Your task to perform on an android device: Open settings Image 0: 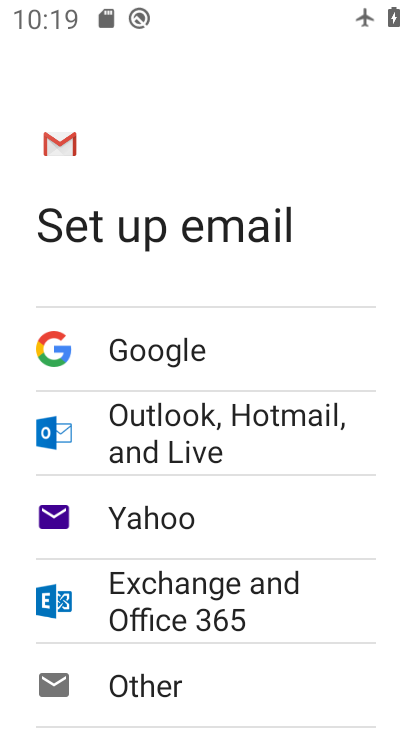
Step 0: press home button
Your task to perform on an android device: Open settings Image 1: 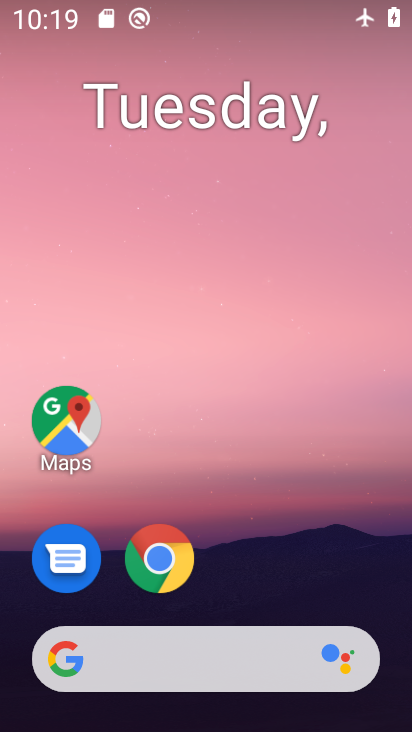
Step 1: drag from (358, 567) to (347, 114)
Your task to perform on an android device: Open settings Image 2: 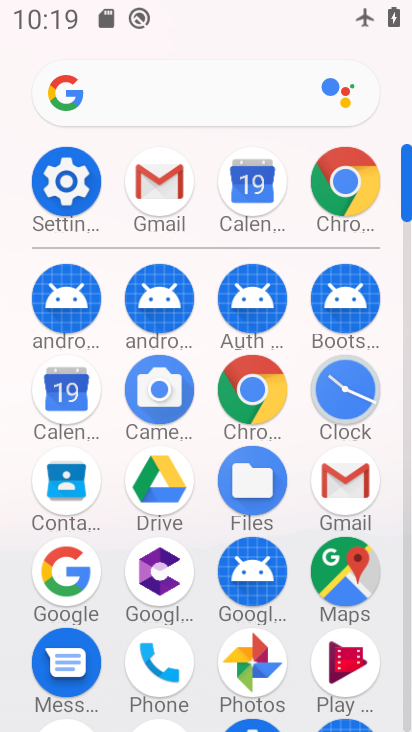
Step 2: click (74, 185)
Your task to perform on an android device: Open settings Image 3: 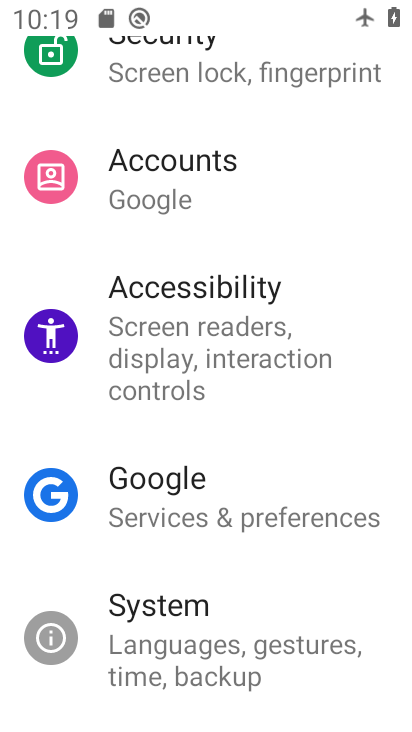
Step 3: task complete